Your task to perform on an android device: make emails show in primary in the gmail app Image 0: 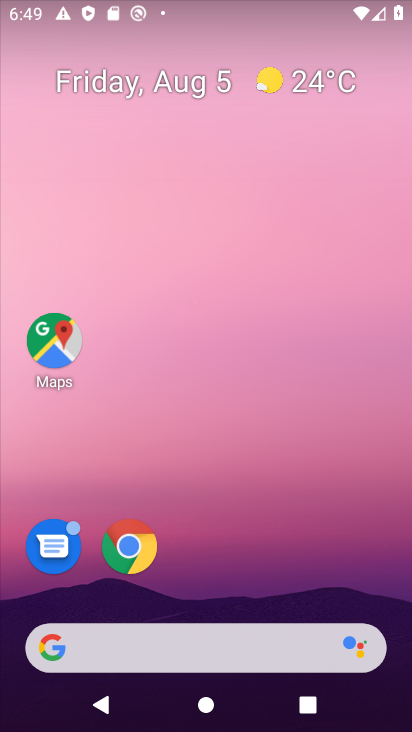
Step 0: drag from (231, 478) to (323, 157)
Your task to perform on an android device: make emails show in primary in the gmail app Image 1: 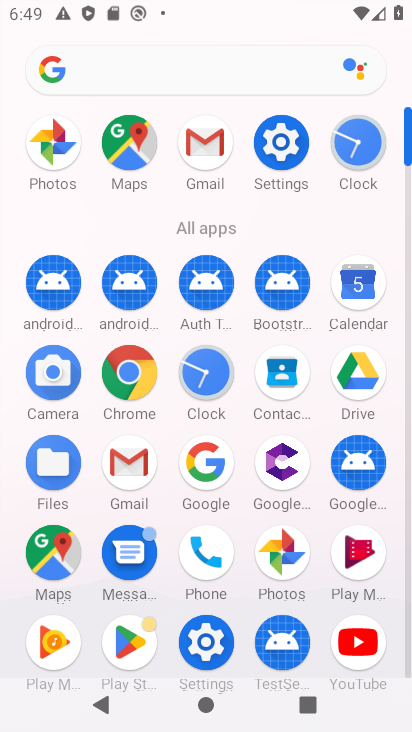
Step 1: click (139, 460)
Your task to perform on an android device: make emails show in primary in the gmail app Image 2: 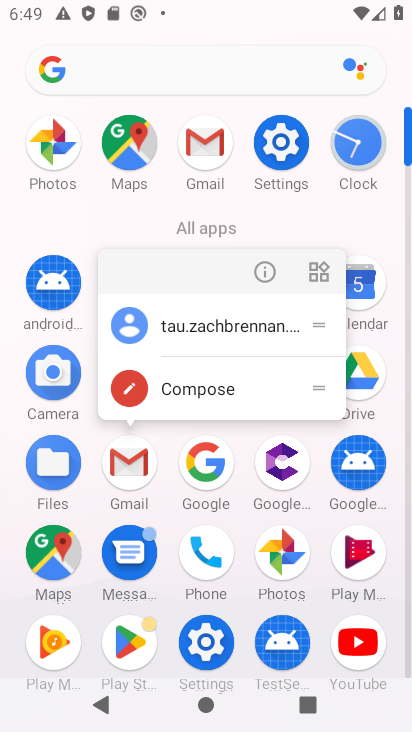
Step 2: click (256, 270)
Your task to perform on an android device: make emails show in primary in the gmail app Image 3: 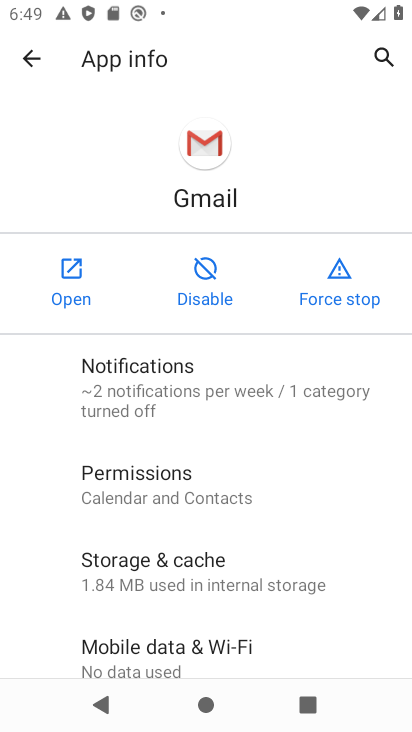
Step 3: click (70, 286)
Your task to perform on an android device: make emails show in primary in the gmail app Image 4: 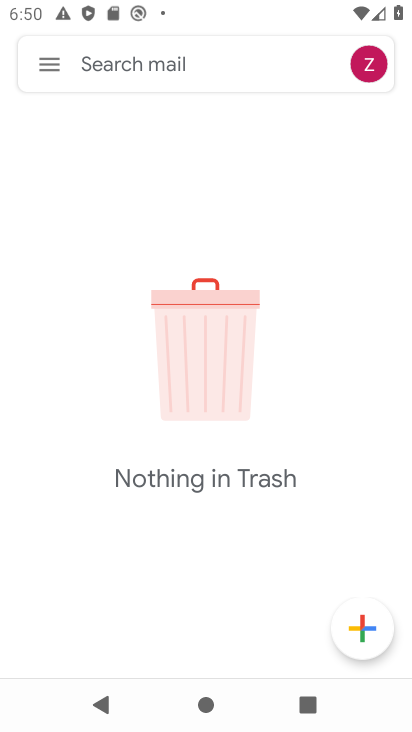
Step 4: drag from (144, 526) to (197, 267)
Your task to perform on an android device: make emails show in primary in the gmail app Image 5: 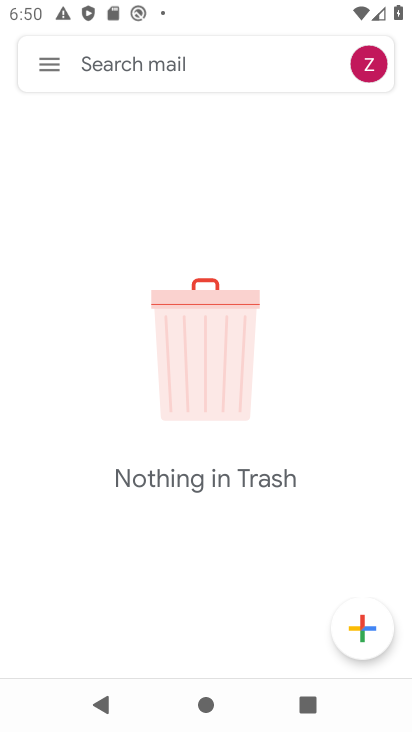
Step 5: drag from (198, 535) to (203, 320)
Your task to perform on an android device: make emails show in primary in the gmail app Image 6: 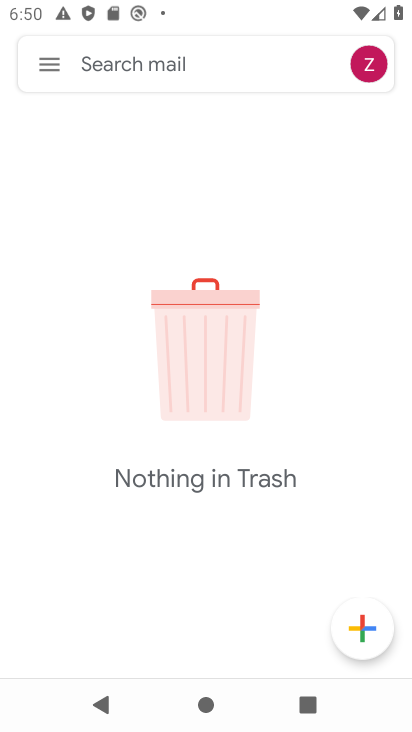
Step 6: click (54, 70)
Your task to perform on an android device: make emails show in primary in the gmail app Image 7: 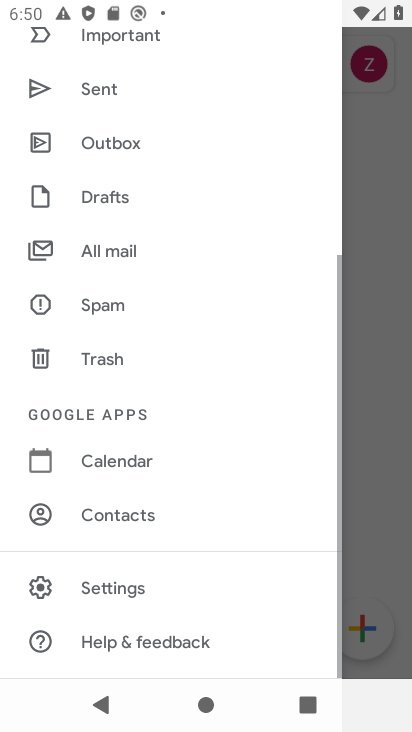
Step 7: drag from (96, 147) to (49, 684)
Your task to perform on an android device: make emails show in primary in the gmail app Image 8: 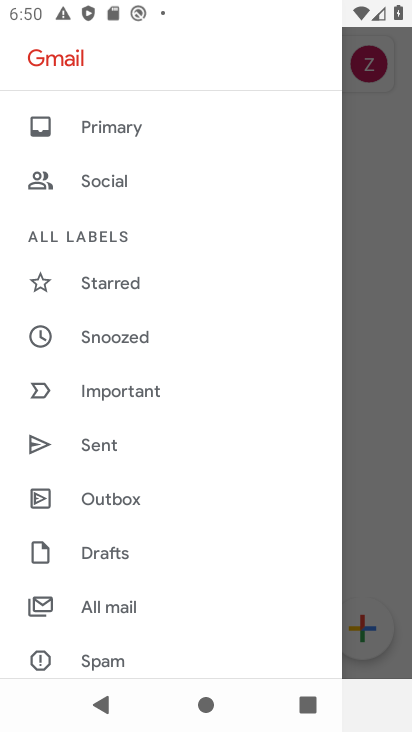
Step 8: click (78, 130)
Your task to perform on an android device: make emails show in primary in the gmail app Image 9: 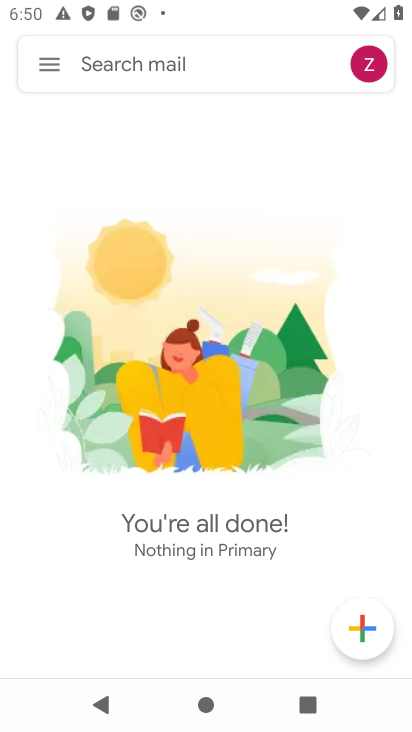
Step 9: task complete